Your task to perform on an android device: change the clock style Image 0: 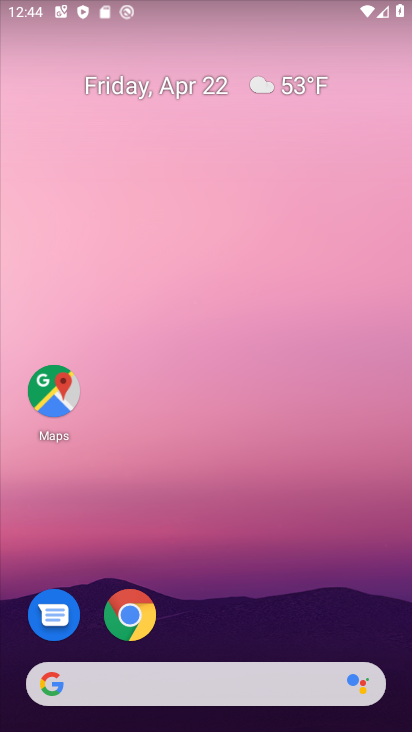
Step 0: drag from (346, 600) to (382, 96)
Your task to perform on an android device: change the clock style Image 1: 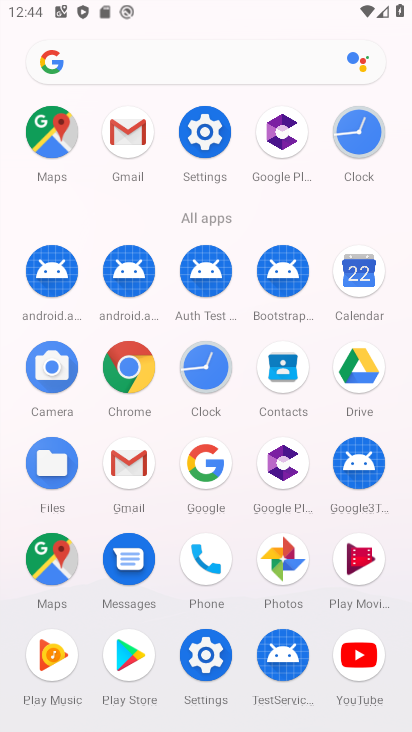
Step 1: click (358, 131)
Your task to perform on an android device: change the clock style Image 2: 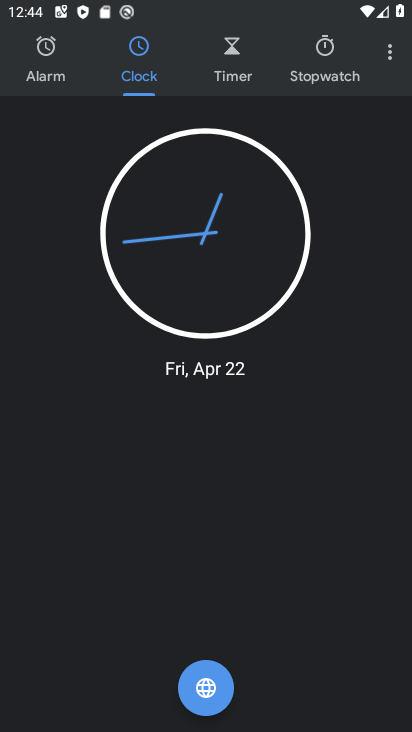
Step 2: click (395, 55)
Your task to perform on an android device: change the clock style Image 3: 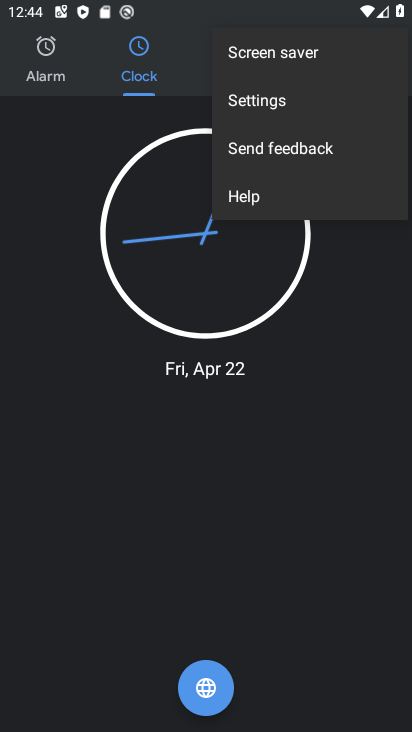
Step 3: click (265, 110)
Your task to perform on an android device: change the clock style Image 4: 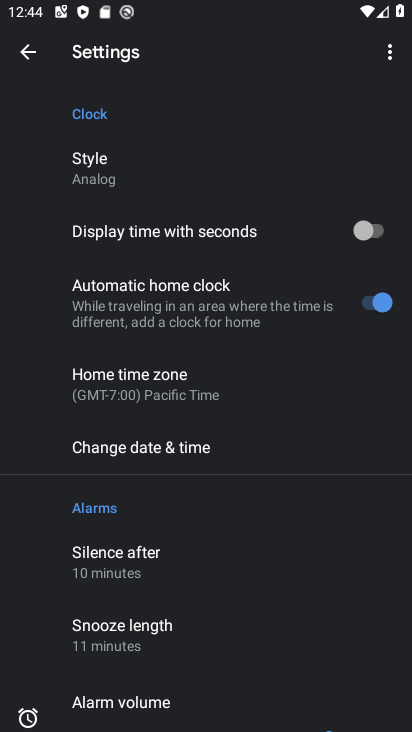
Step 4: click (107, 185)
Your task to perform on an android device: change the clock style Image 5: 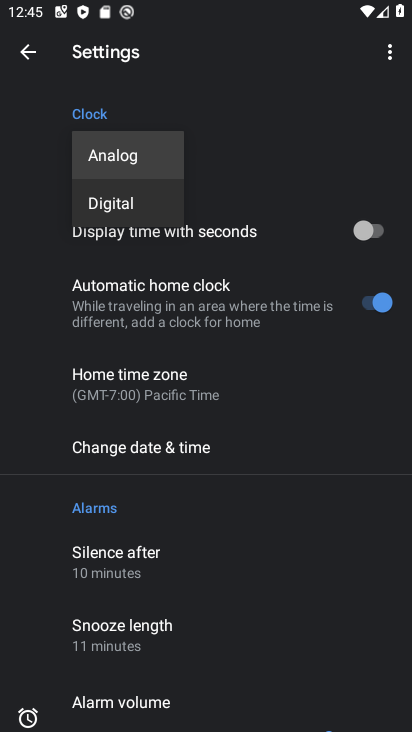
Step 5: click (120, 210)
Your task to perform on an android device: change the clock style Image 6: 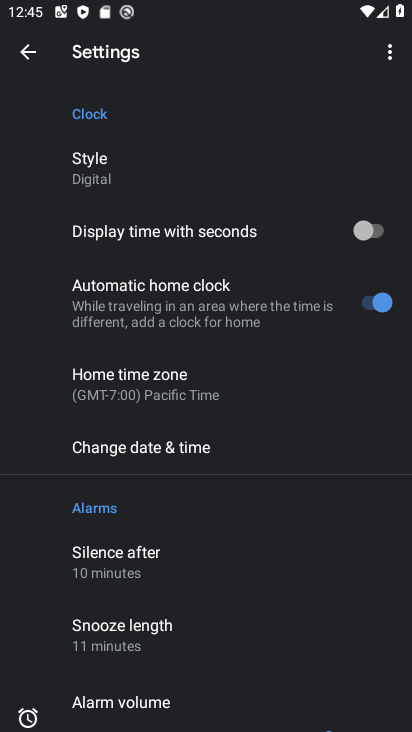
Step 6: task complete